Your task to perform on an android device: find snoozed emails in the gmail app Image 0: 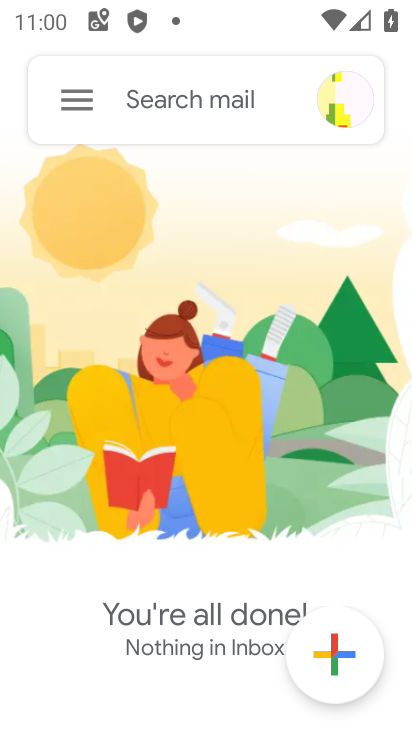
Step 0: click (78, 91)
Your task to perform on an android device: find snoozed emails in the gmail app Image 1: 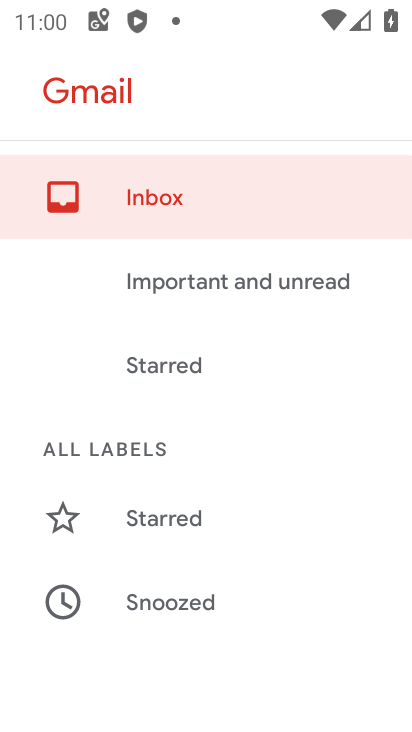
Step 1: click (180, 592)
Your task to perform on an android device: find snoozed emails in the gmail app Image 2: 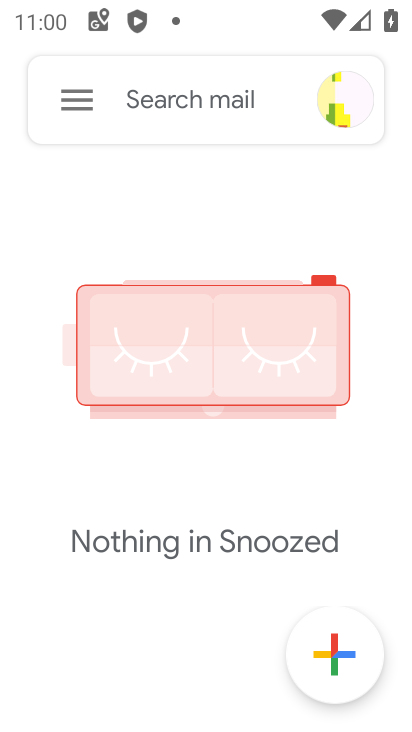
Step 2: task complete